Your task to perform on an android device: turn on airplane mode Image 0: 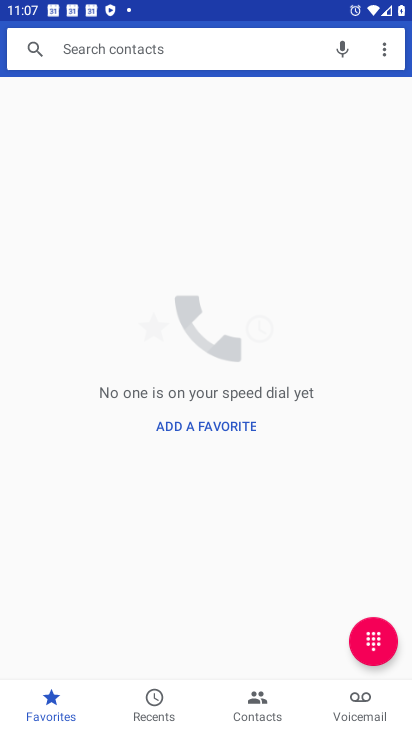
Step 0: press home button
Your task to perform on an android device: turn on airplane mode Image 1: 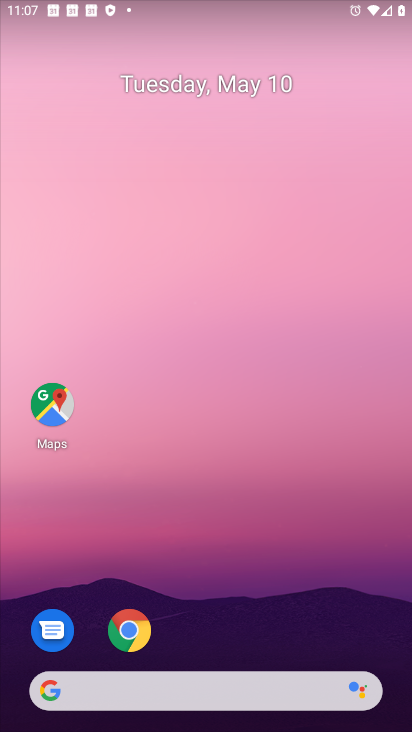
Step 1: drag from (288, 662) to (229, 22)
Your task to perform on an android device: turn on airplane mode Image 2: 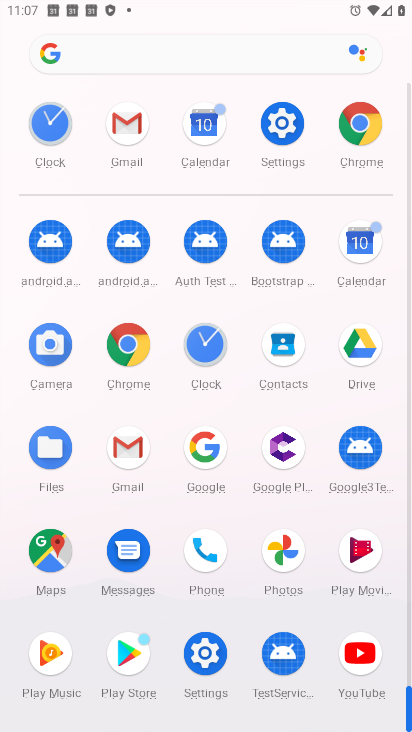
Step 2: click (283, 127)
Your task to perform on an android device: turn on airplane mode Image 3: 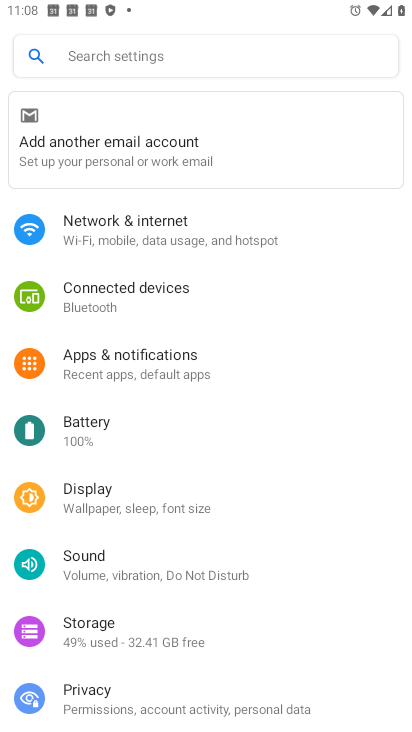
Step 3: click (260, 222)
Your task to perform on an android device: turn on airplane mode Image 4: 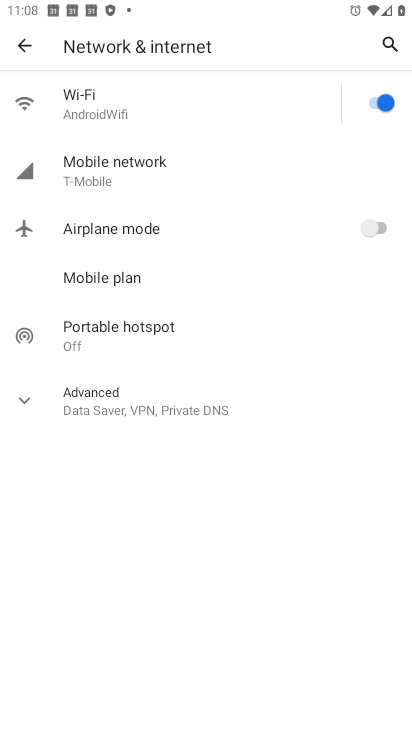
Step 4: click (173, 230)
Your task to perform on an android device: turn on airplane mode Image 5: 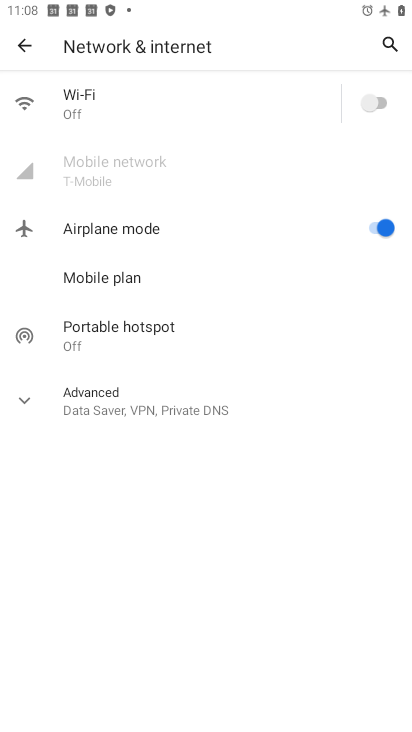
Step 5: task complete